Your task to perform on an android device: change the clock display to analog Image 0: 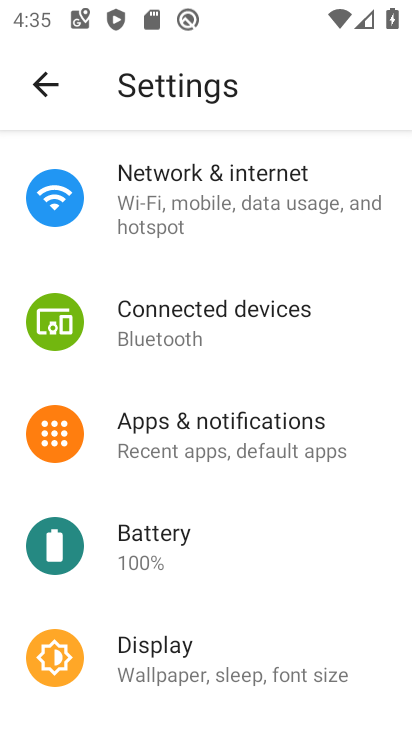
Step 0: press home button
Your task to perform on an android device: change the clock display to analog Image 1: 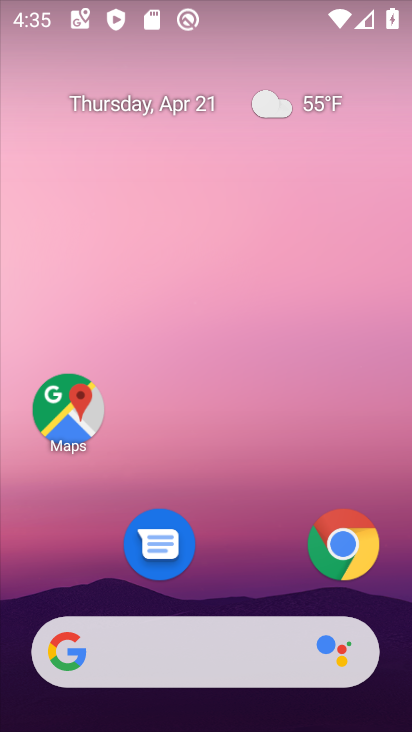
Step 1: drag from (231, 683) to (254, 212)
Your task to perform on an android device: change the clock display to analog Image 2: 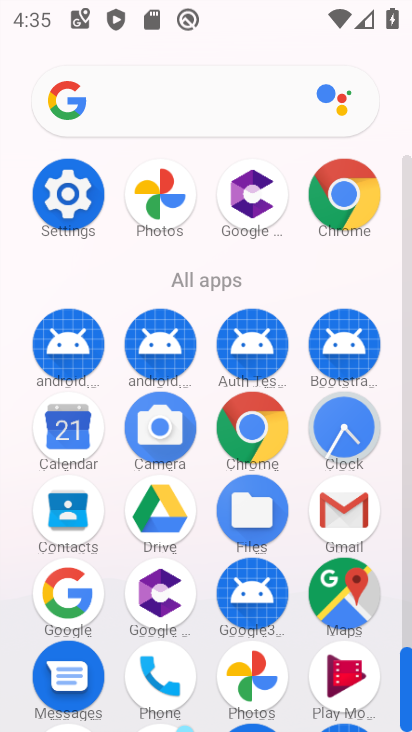
Step 2: drag from (159, 544) to (262, 191)
Your task to perform on an android device: change the clock display to analog Image 3: 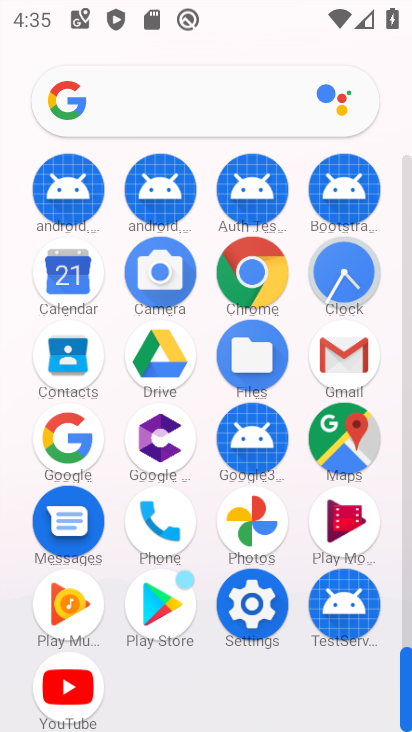
Step 3: drag from (191, 241) to (194, 537)
Your task to perform on an android device: change the clock display to analog Image 4: 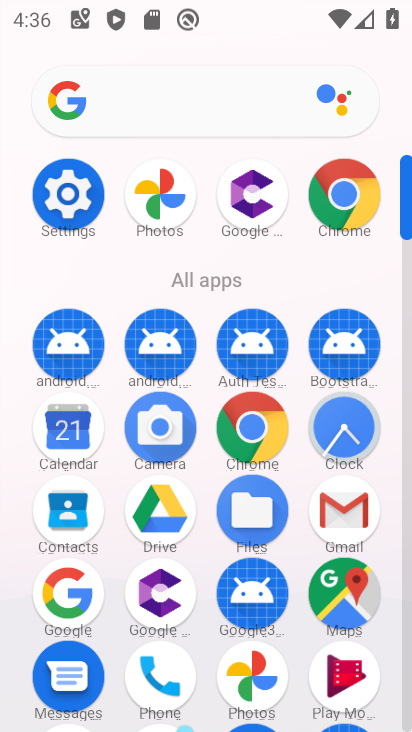
Step 4: click (338, 421)
Your task to perform on an android device: change the clock display to analog Image 5: 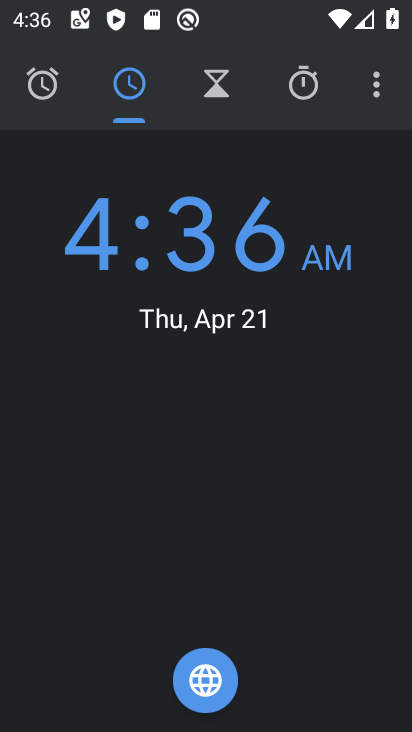
Step 5: click (35, 89)
Your task to perform on an android device: change the clock display to analog Image 6: 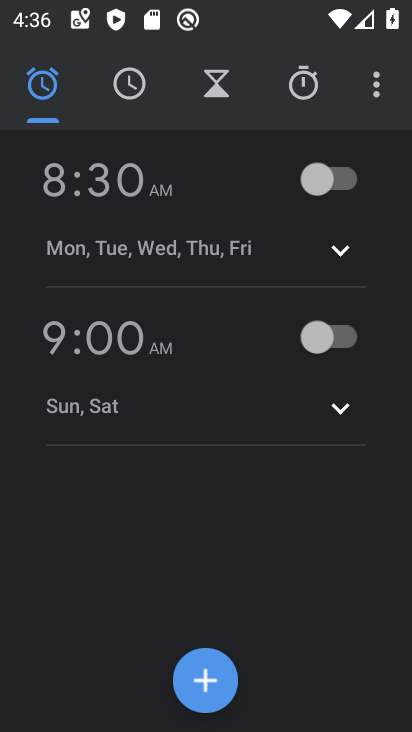
Step 6: task complete